Your task to perform on an android device: turn on data saver in the chrome app Image 0: 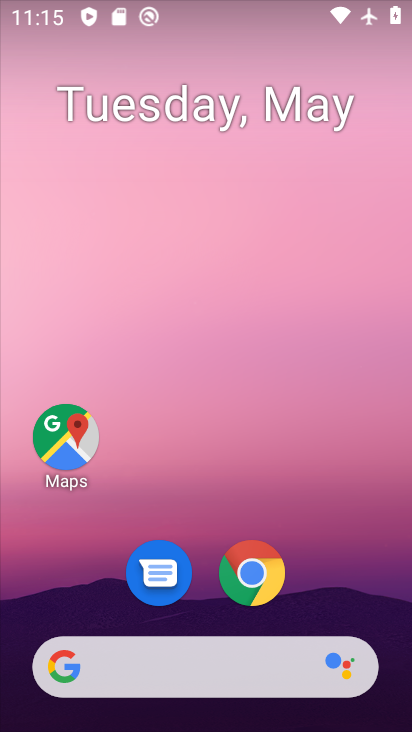
Step 0: click (250, 579)
Your task to perform on an android device: turn on data saver in the chrome app Image 1: 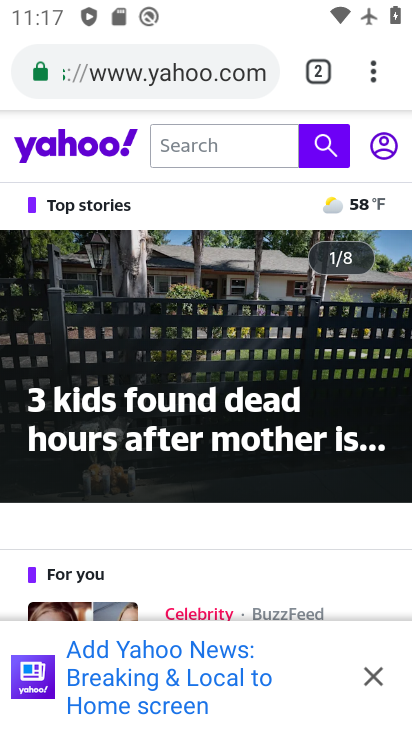
Step 1: click (379, 60)
Your task to perform on an android device: turn on data saver in the chrome app Image 2: 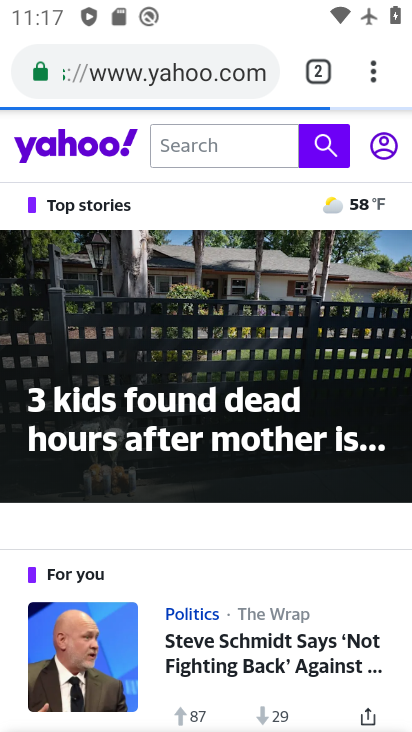
Step 2: click (375, 71)
Your task to perform on an android device: turn on data saver in the chrome app Image 3: 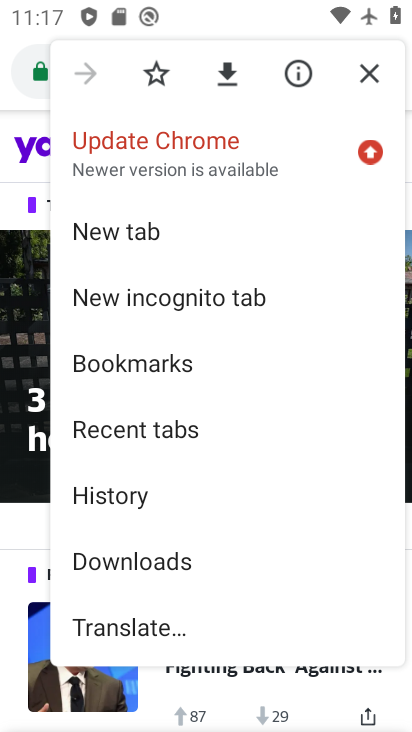
Step 3: drag from (195, 636) to (150, 234)
Your task to perform on an android device: turn on data saver in the chrome app Image 4: 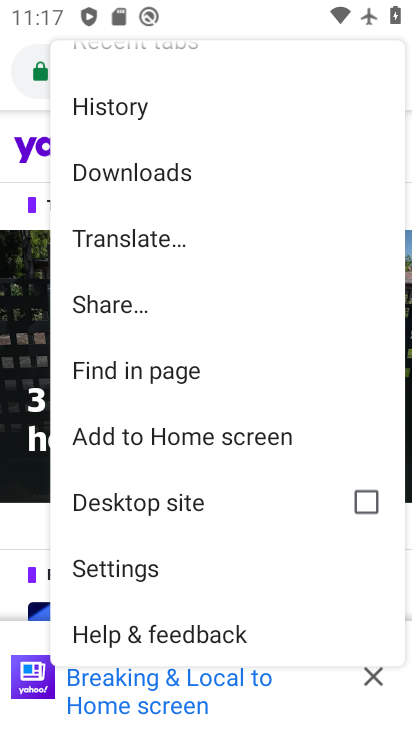
Step 4: click (115, 566)
Your task to perform on an android device: turn on data saver in the chrome app Image 5: 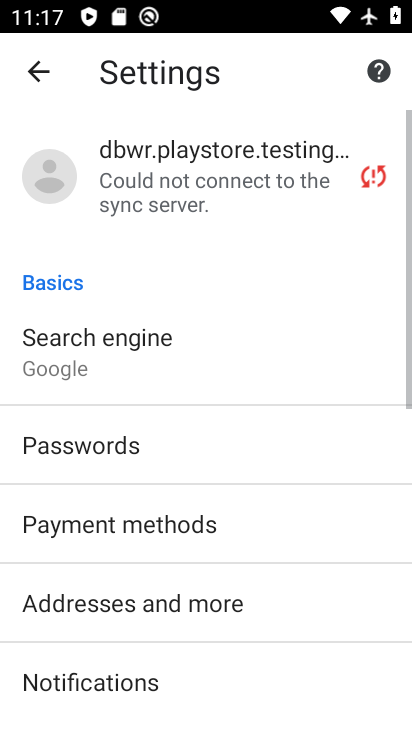
Step 5: drag from (126, 686) to (87, 381)
Your task to perform on an android device: turn on data saver in the chrome app Image 6: 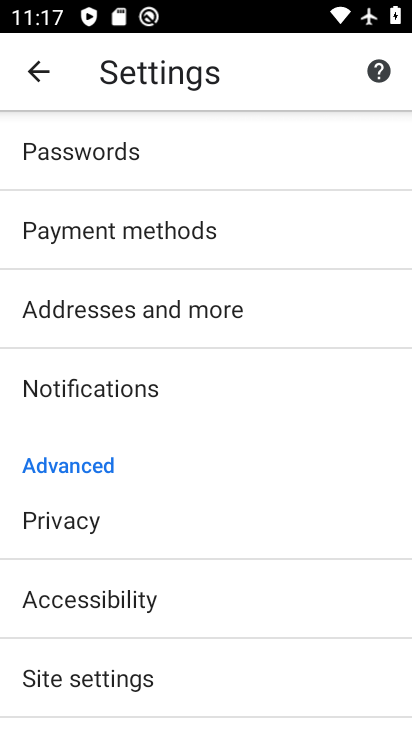
Step 6: click (86, 673)
Your task to perform on an android device: turn on data saver in the chrome app Image 7: 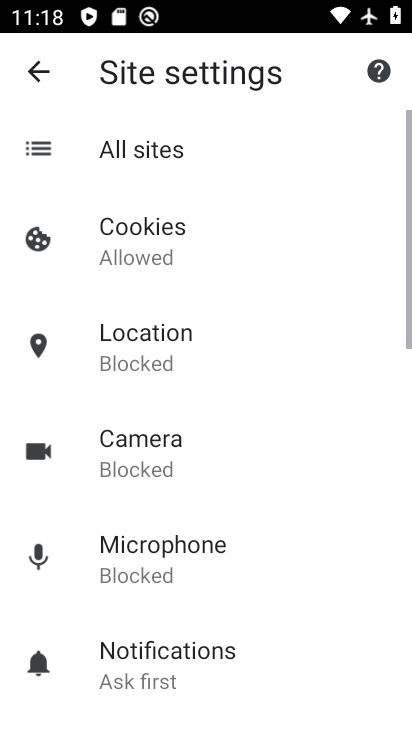
Step 7: click (34, 60)
Your task to perform on an android device: turn on data saver in the chrome app Image 8: 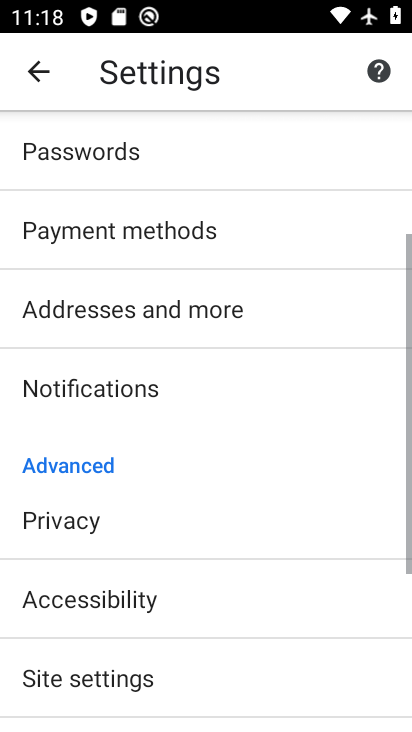
Step 8: drag from (219, 644) to (174, 281)
Your task to perform on an android device: turn on data saver in the chrome app Image 9: 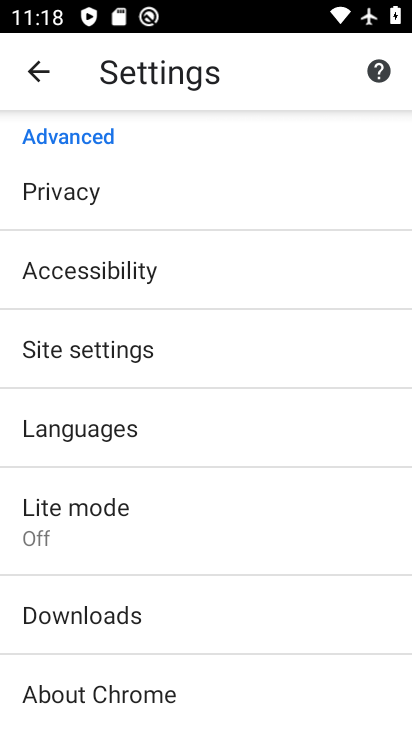
Step 9: click (72, 520)
Your task to perform on an android device: turn on data saver in the chrome app Image 10: 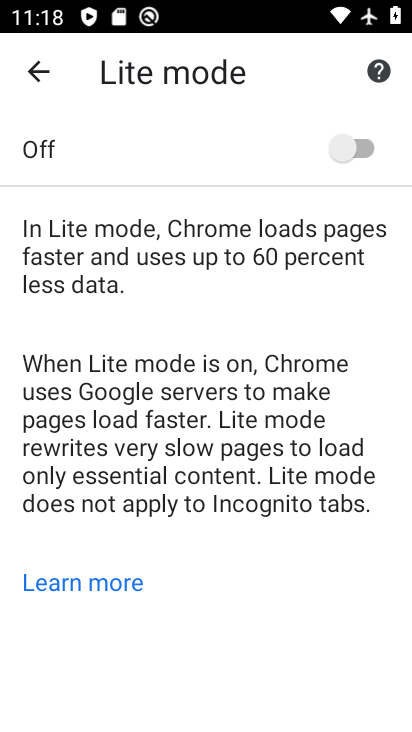
Step 10: click (366, 142)
Your task to perform on an android device: turn on data saver in the chrome app Image 11: 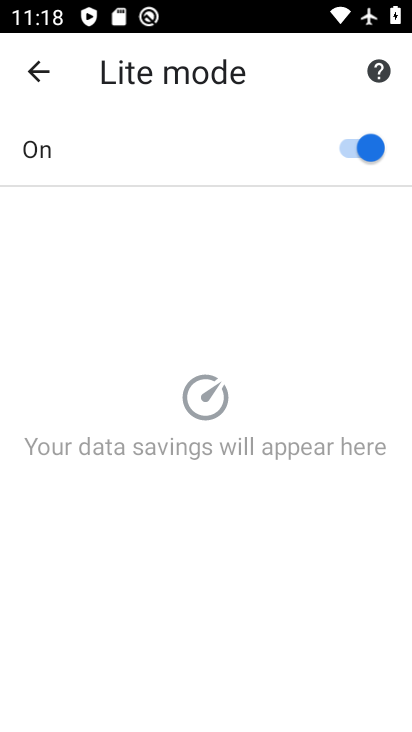
Step 11: task complete